Your task to perform on an android device: change the clock display to digital Image 0: 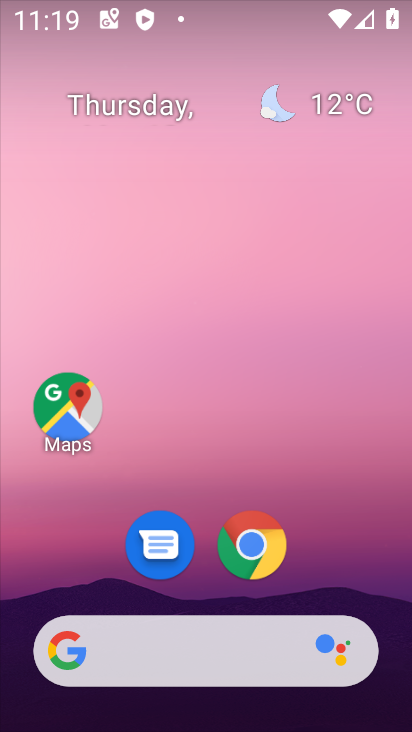
Step 0: drag from (314, 455) to (314, 200)
Your task to perform on an android device: change the clock display to digital Image 1: 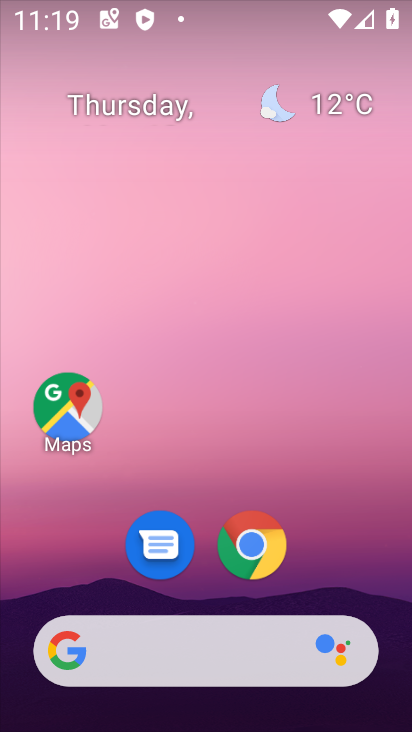
Step 1: drag from (351, 408) to (380, 82)
Your task to perform on an android device: change the clock display to digital Image 2: 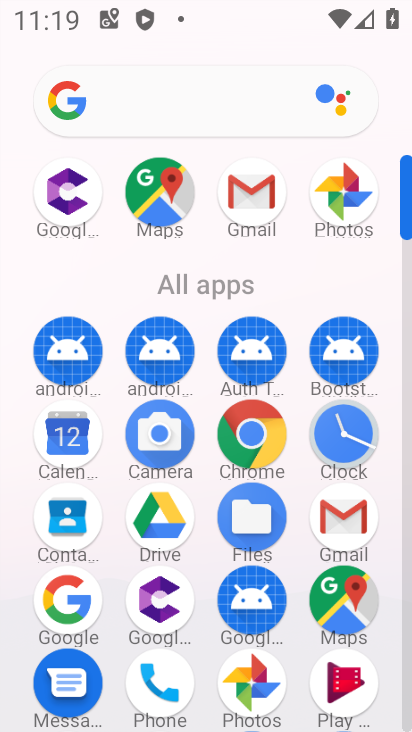
Step 2: click (347, 438)
Your task to perform on an android device: change the clock display to digital Image 3: 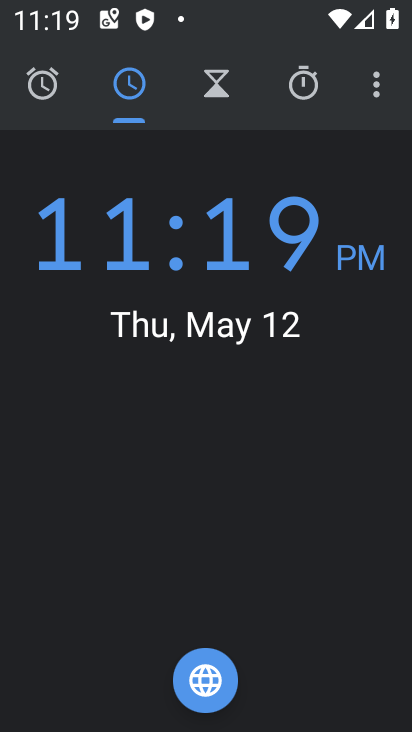
Step 3: click (378, 105)
Your task to perform on an android device: change the clock display to digital Image 4: 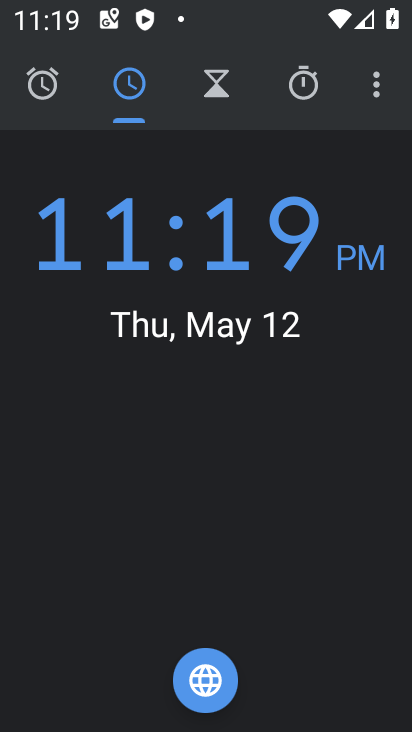
Step 4: click (378, 101)
Your task to perform on an android device: change the clock display to digital Image 5: 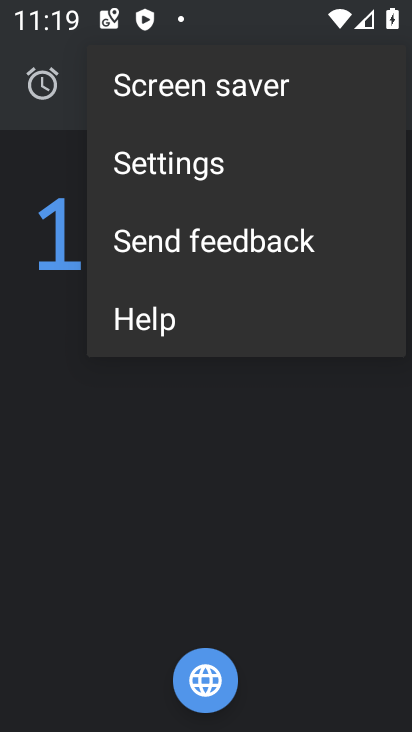
Step 5: click (266, 173)
Your task to perform on an android device: change the clock display to digital Image 6: 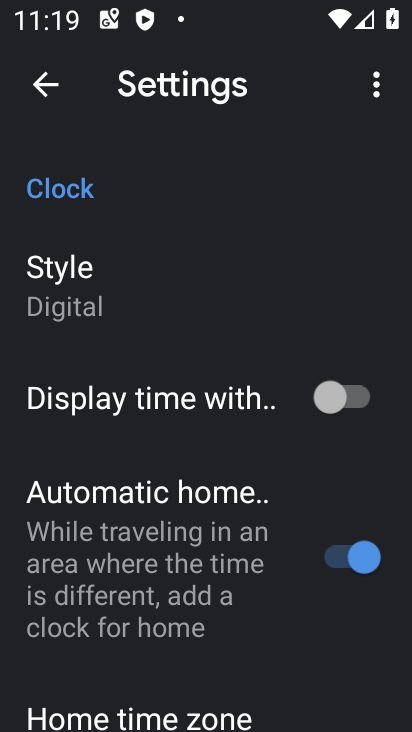
Step 6: task complete